Your task to perform on an android device: open device folders in google photos Image 0: 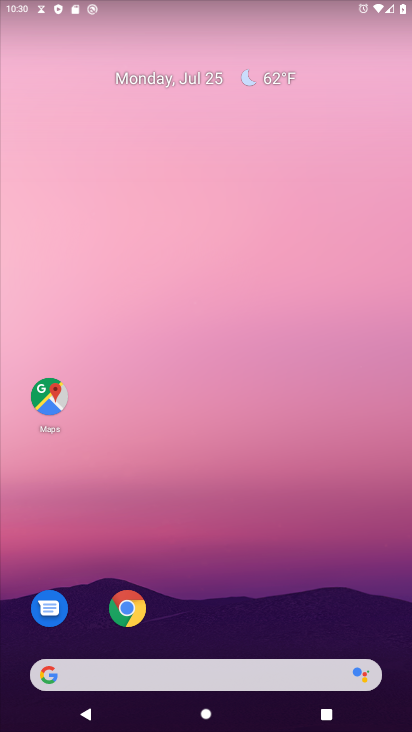
Step 0: drag from (166, 679) to (204, 152)
Your task to perform on an android device: open device folders in google photos Image 1: 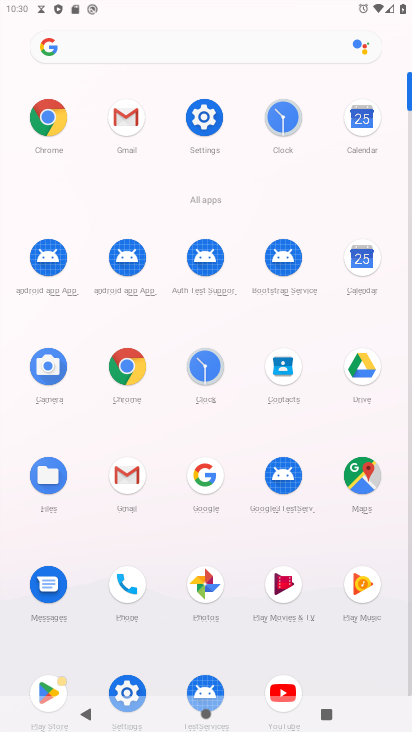
Step 1: click (203, 586)
Your task to perform on an android device: open device folders in google photos Image 2: 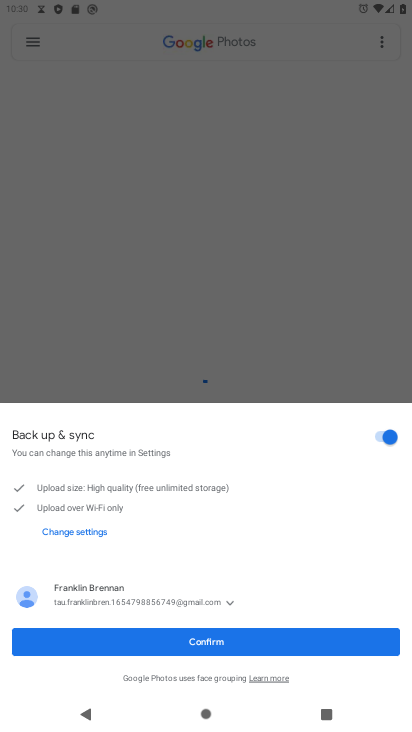
Step 2: click (210, 639)
Your task to perform on an android device: open device folders in google photos Image 3: 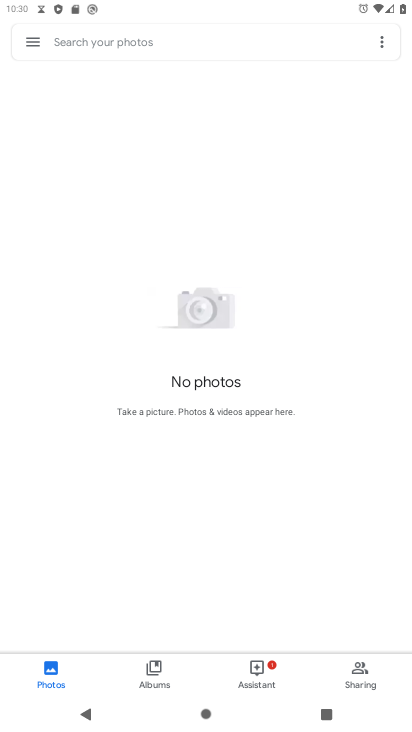
Step 3: click (33, 43)
Your task to perform on an android device: open device folders in google photos Image 4: 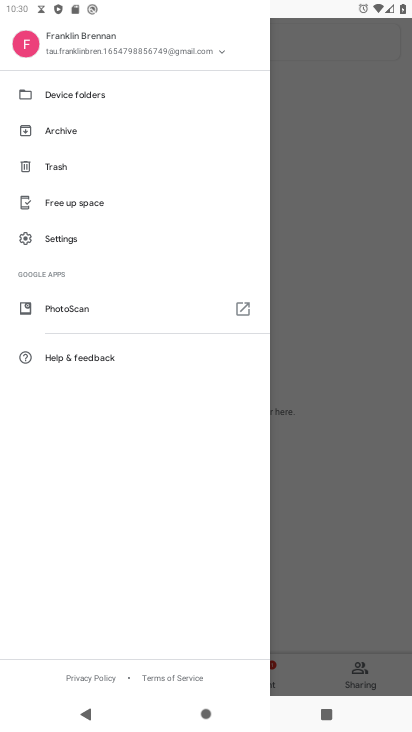
Step 4: click (56, 97)
Your task to perform on an android device: open device folders in google photos Image 5: 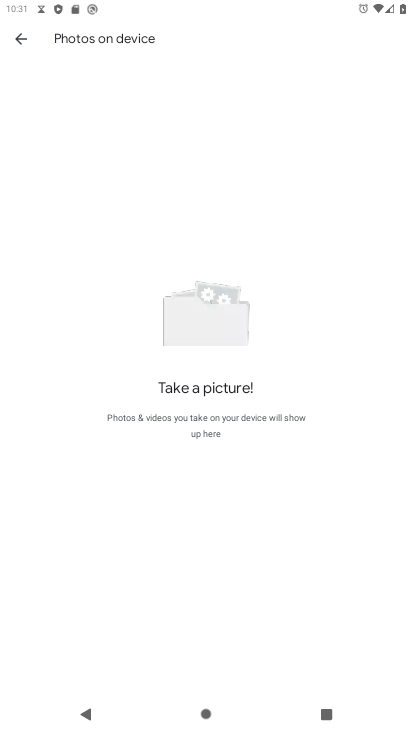
Step 5: task complete